Your task to perform on an android device: Open Chrome and go to settings Image 0: 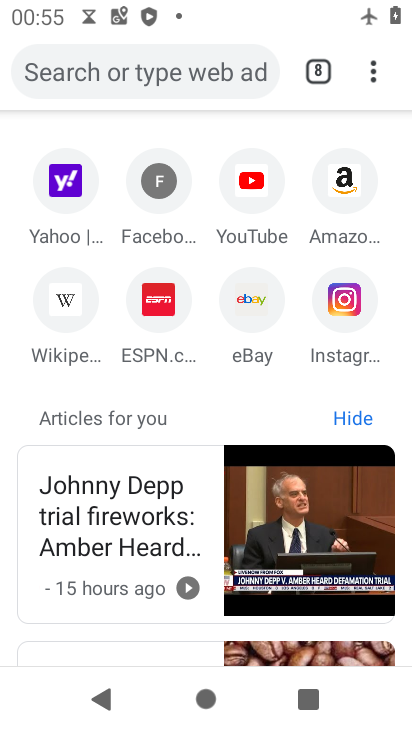
Step 0: click (378, 62)
Your task to perform on an android device: Open Chrome and go to settings Image 1: 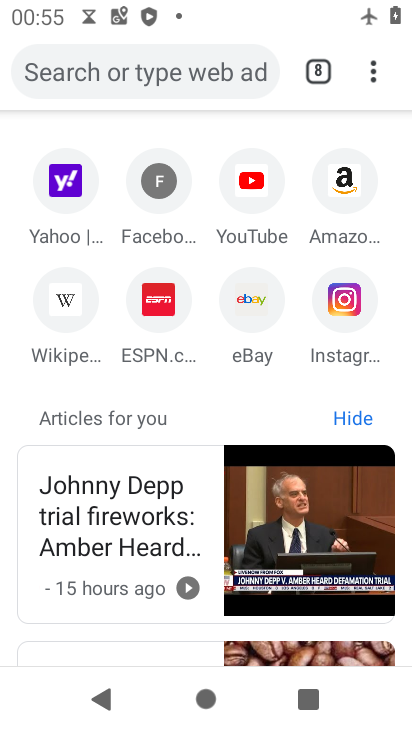
Step 1: click (366, 63)
Your task to perform on an android device: Open Chrome and go to settings Image 2: 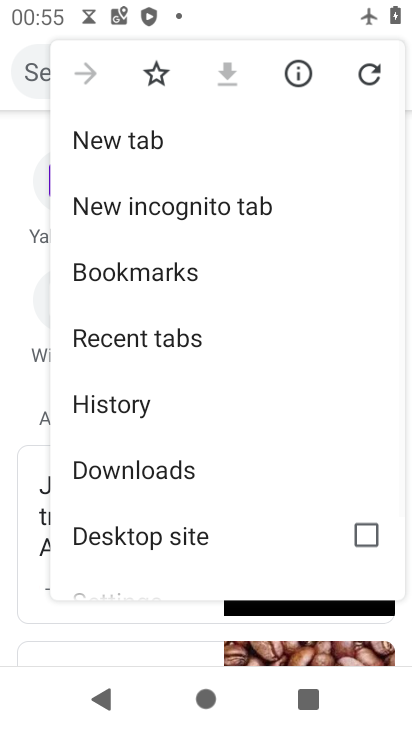
Step 2: drag from (116, 512) to (201, 179)
Your task to perform on an android device: Open Chrome and go to settings Image 3: 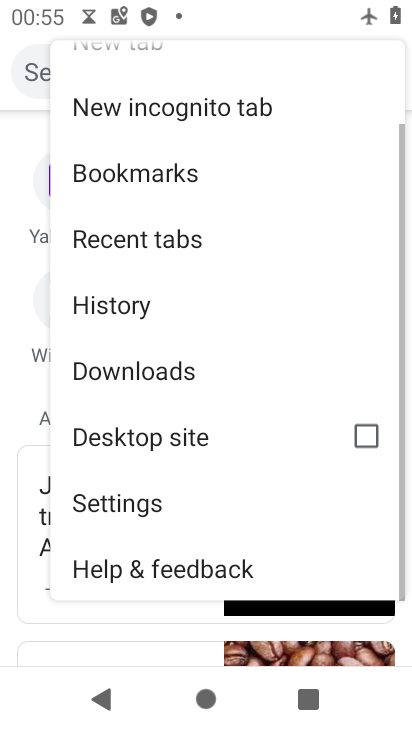
Step 3: click (158, 494)
Your task to perform on an android device: Open Chrome and go to settings Image 4: 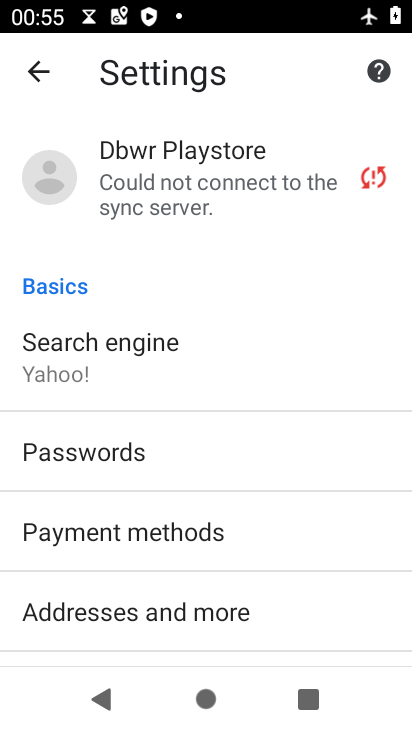
Step 4: task complete